Your task to perform on an android device: View the shopping cart on bestbuy.com. Add macbook pro 15 inch to the cart on bestbuy.com, then select checkout. Image 0: 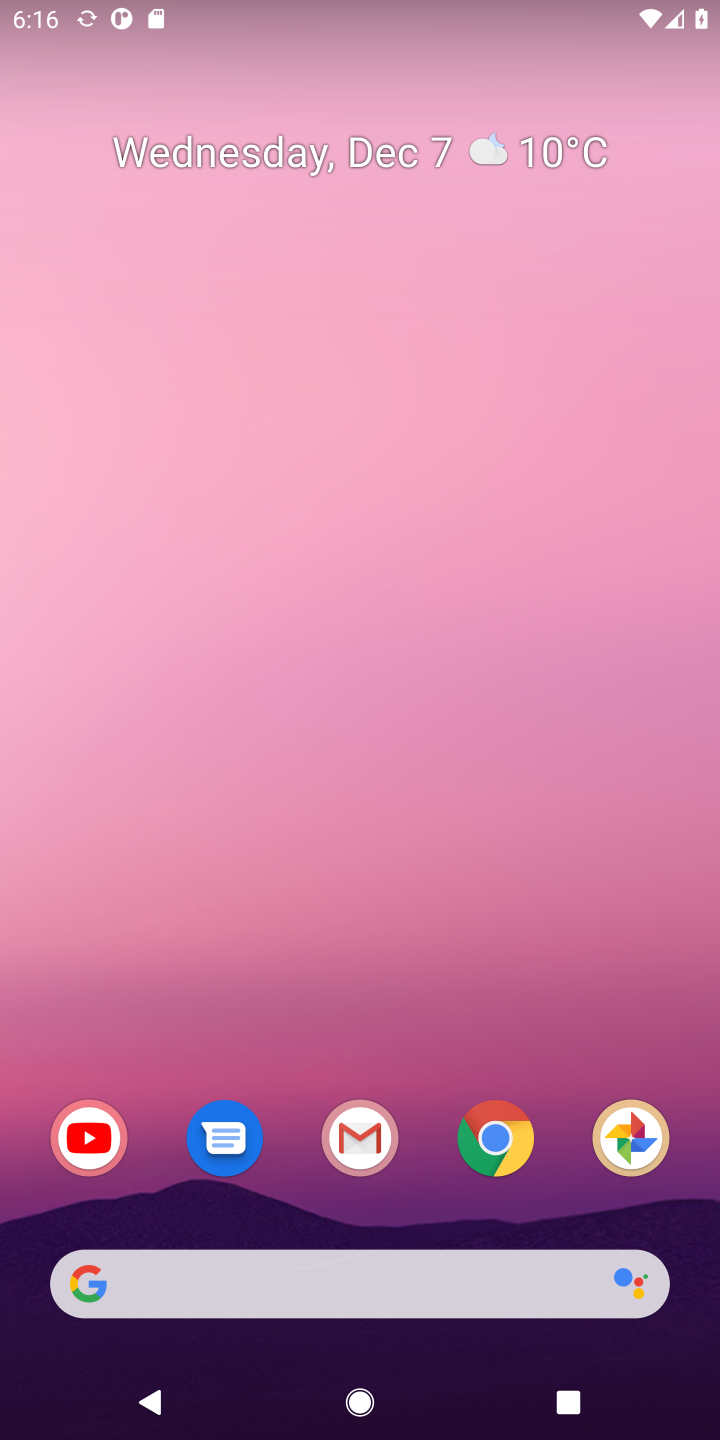
Step 0: press home button
Your task to perform on an android device: View the shopping cart on bestbuy.com. Add macbook pro 15 inch to the cart on bestbuy.com, then select checkout. Image 1: 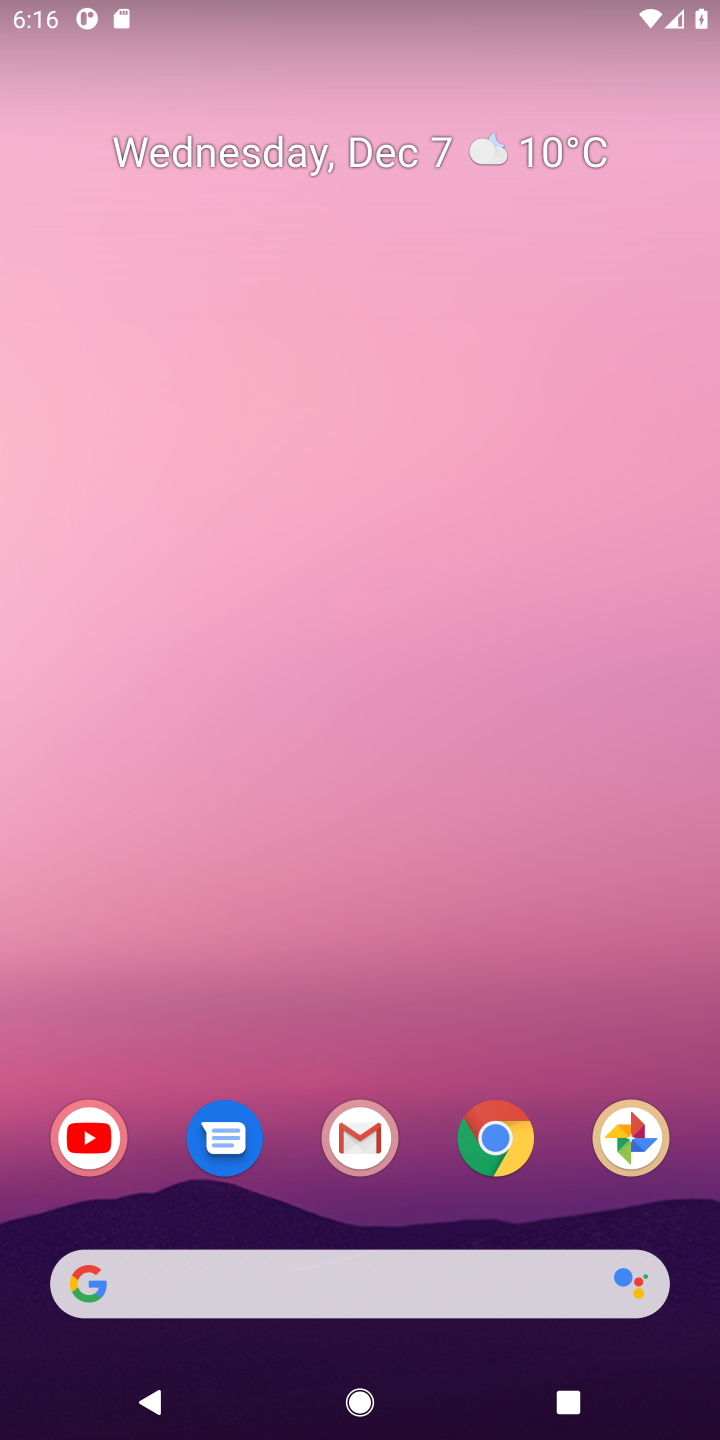
Step 1: click (251, 1288)
Your task to perform on an android device: View the shopping cart on bestbuy.com. Add macbook pro 15 inch to the cart on bestbuy.com, then select checkout. Image 2: 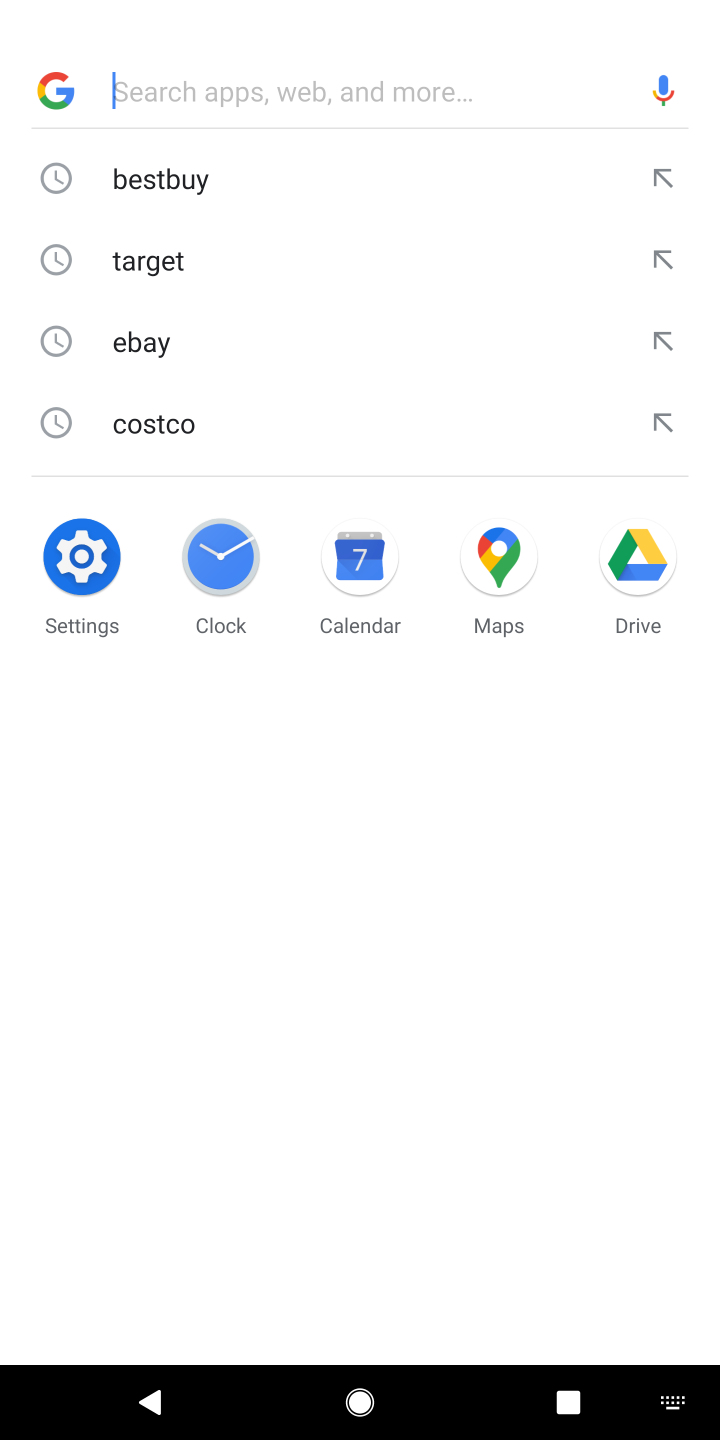
Step 2: click (185, 186)
Your task to perform on an android device: View the shopping cart on bestbuy.com. Add macbook pro 15 inch to the cart on bestbuy.com, then select checkout. Image 3: 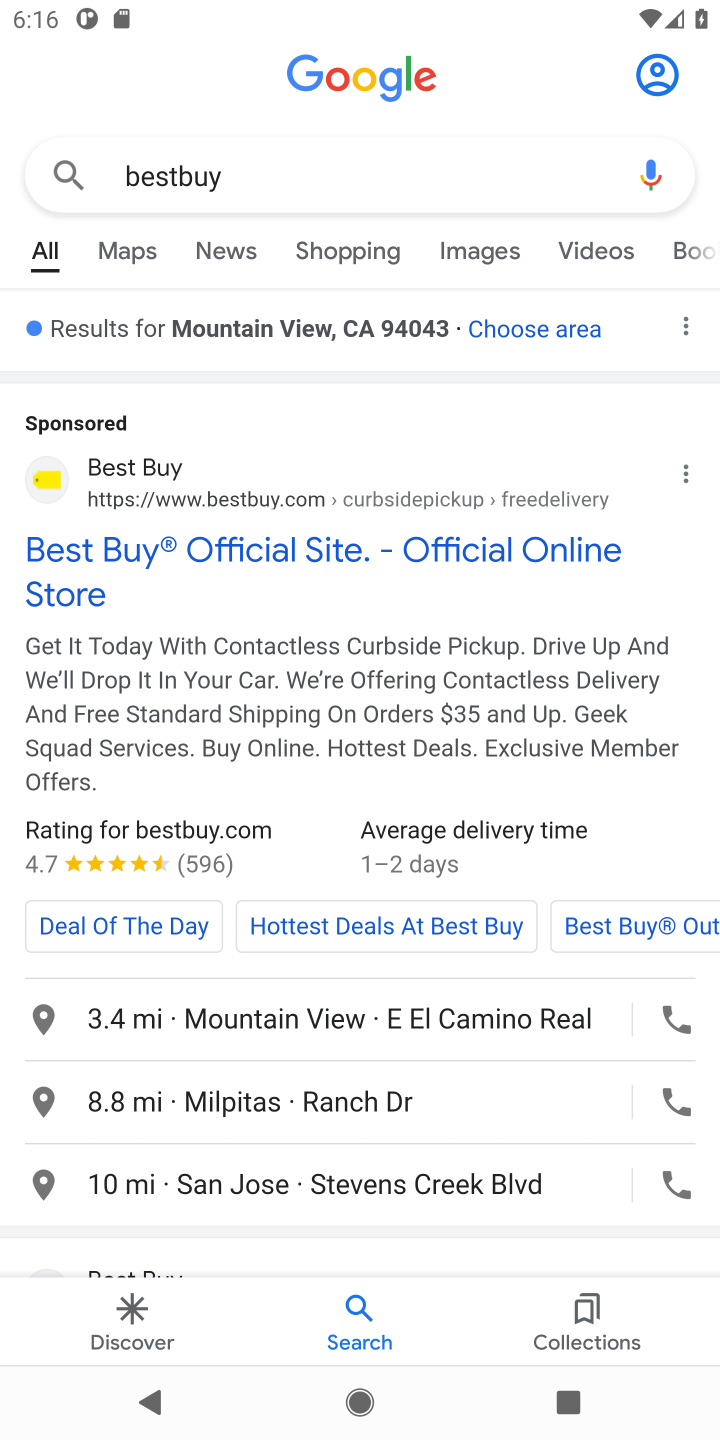
Step 3: click (249, 537)
Your task to perform on an android device: View the shopping cart on bestbuy.com. Add macbook pro 15 inch to the cart on bestbuy.com, then select checkout. Image 4: 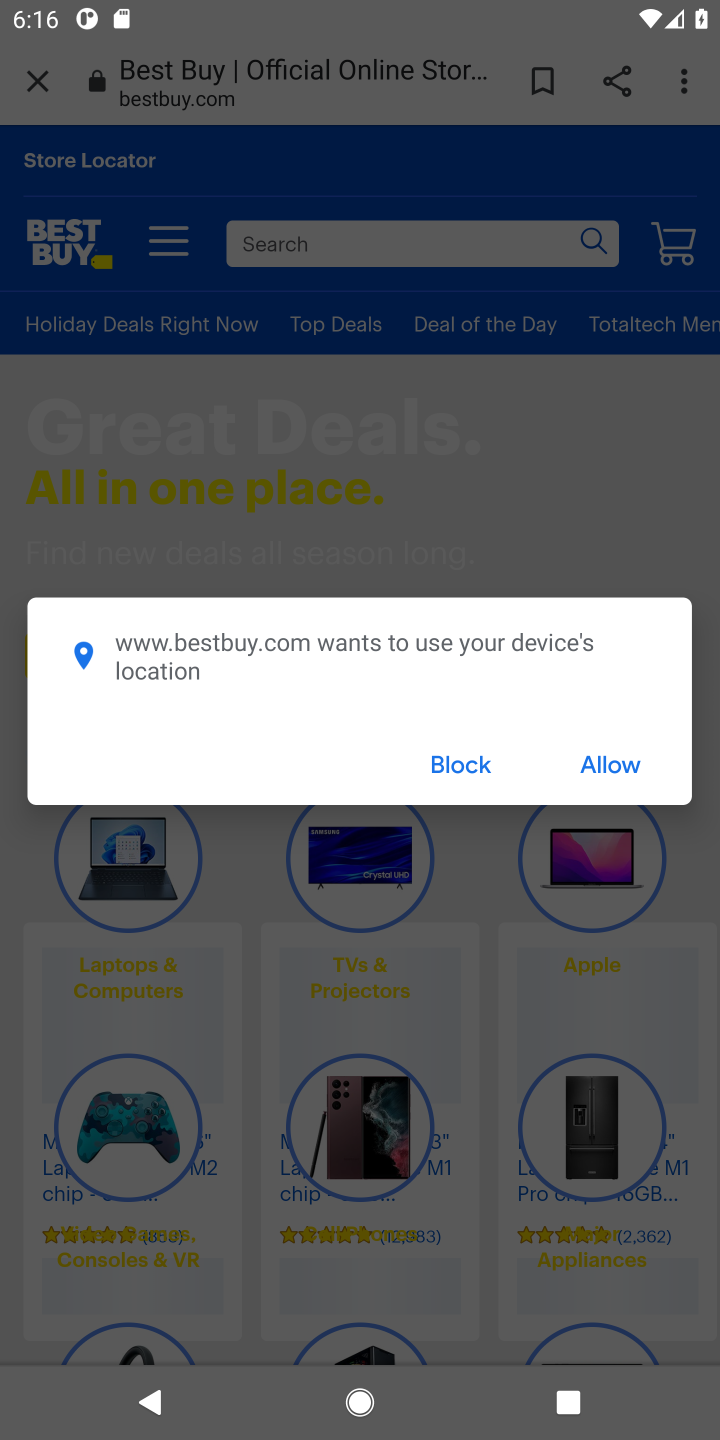
Step 4: click (443, 766)
Your task to perform on an android device: View the shopping cart on bestbuy.com. Add macbook pro 15 inch to the cart on bestbuy.com, then select checkout. Image 5: 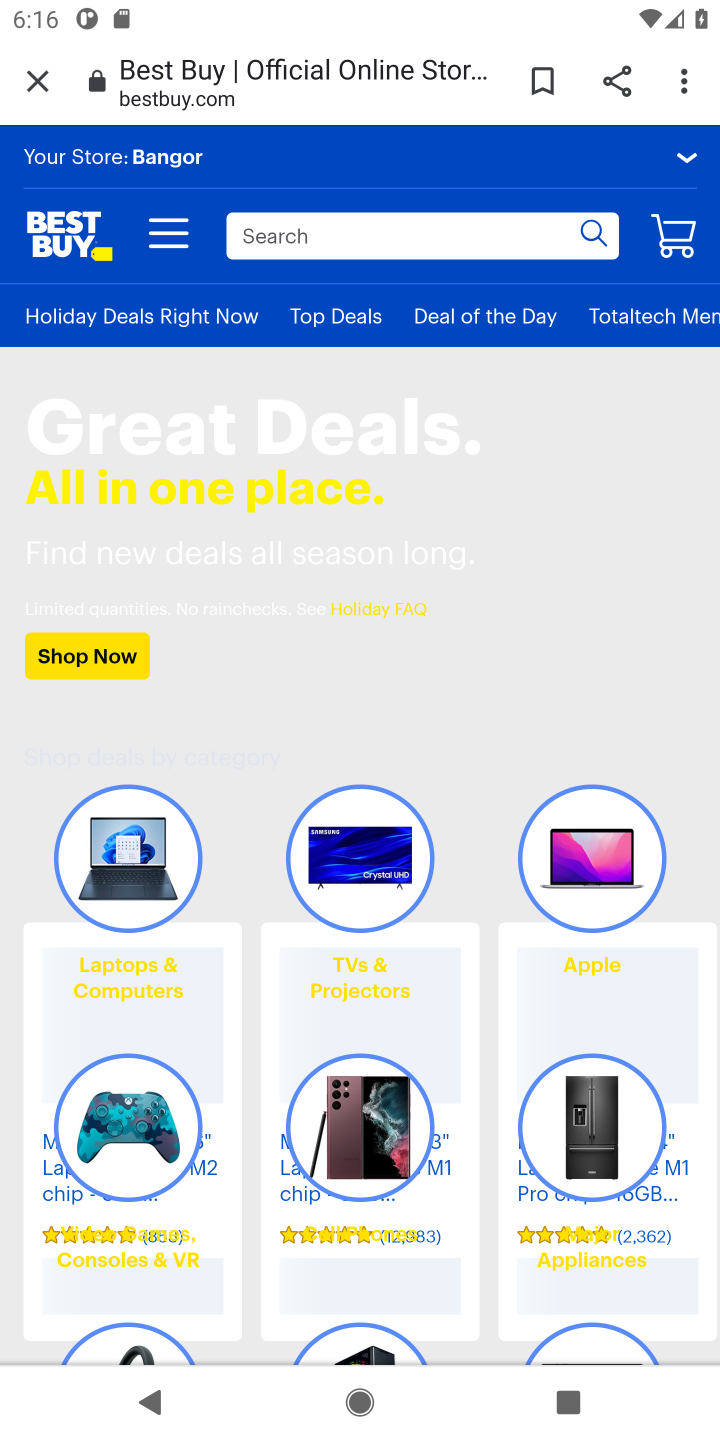
Step 5: click (683, 243)
Your task to perform on an android device: View the shopping cart on bestbuy.com. Add macbook pro 15 inch to the cart on bestbuy.com, then select checkout. Image 6: 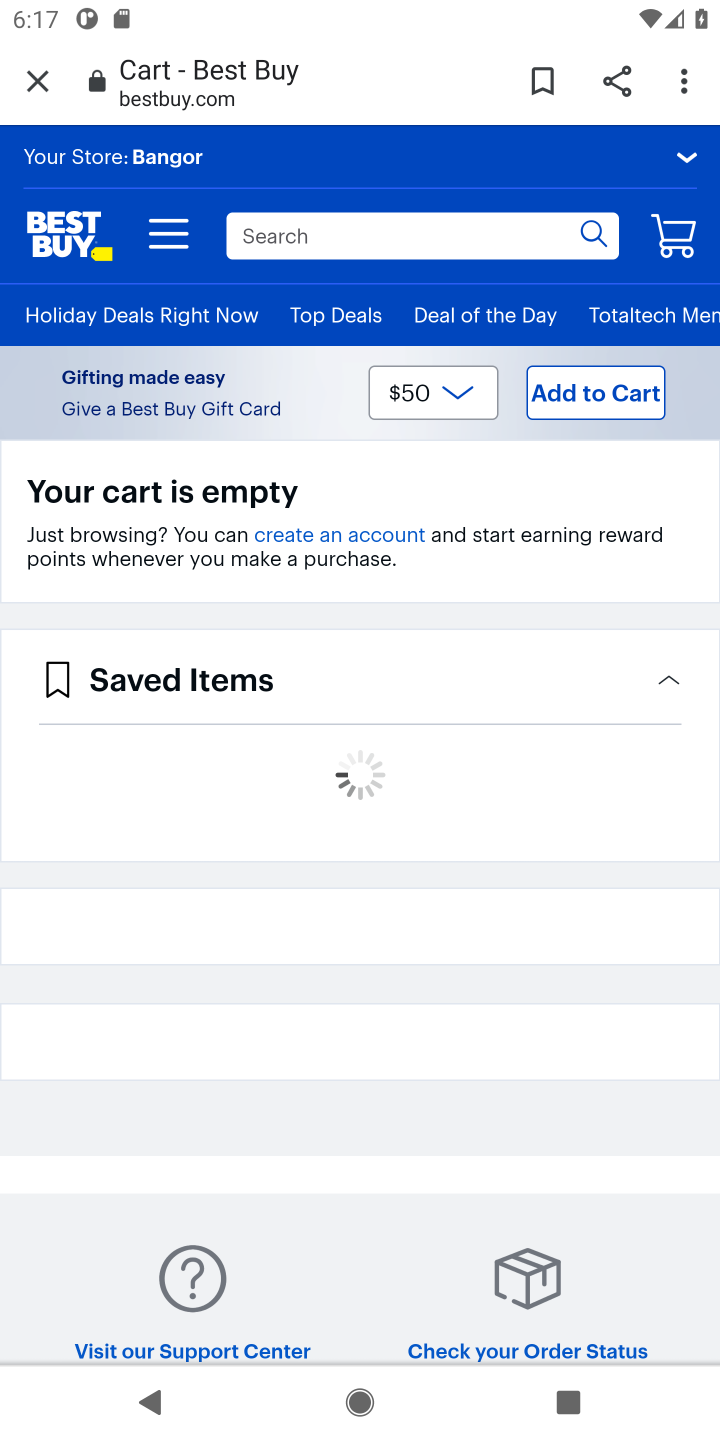
Step 6: click (319, 227)
Your task to perform on an android device: View the shopping cart on bestbuy.com. Add macbook pro 15 inch to the cart on bestbuy.com, then select checkout. Image 7: 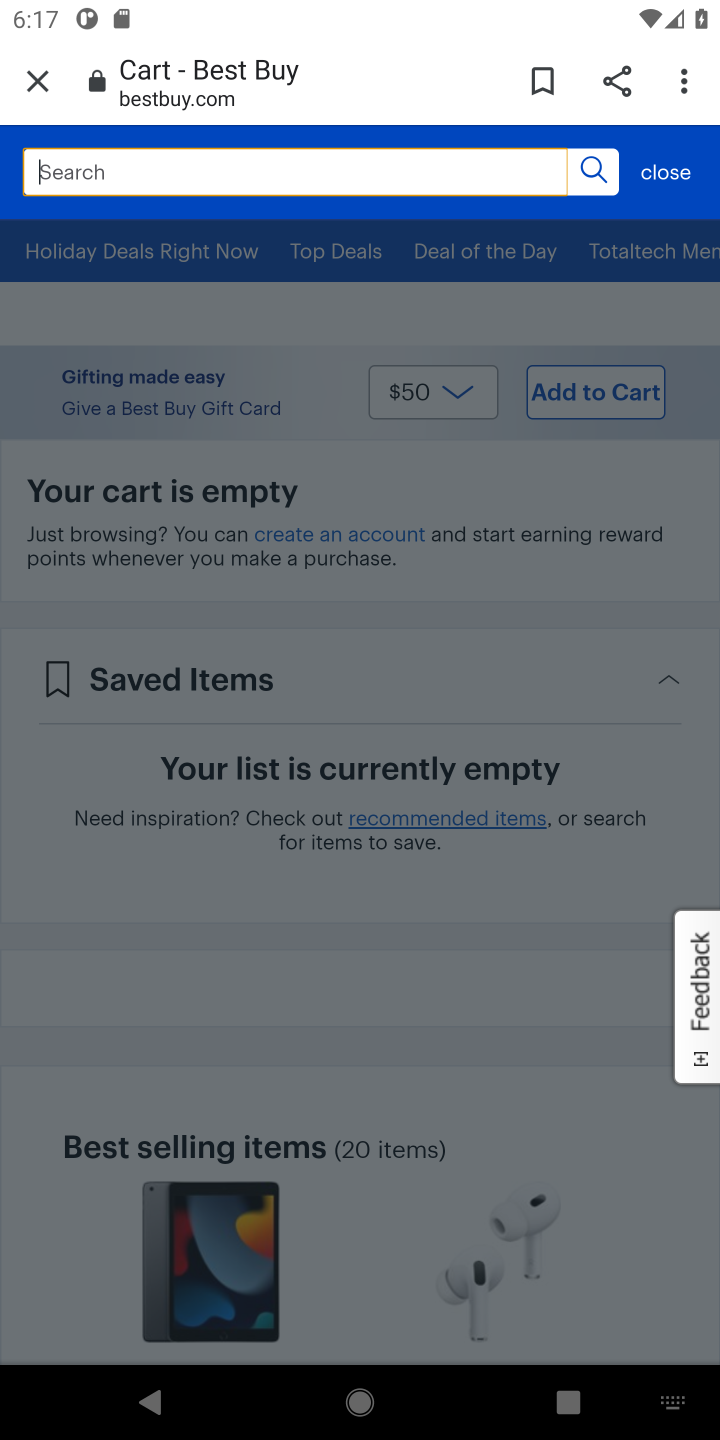
Step 7: press enter
Your task to perform on an android device: View the shopping cart on bestbuy.com. Add macbook pro 15 inch to the cart on bestbuy.com, then select checkout. Image 8: 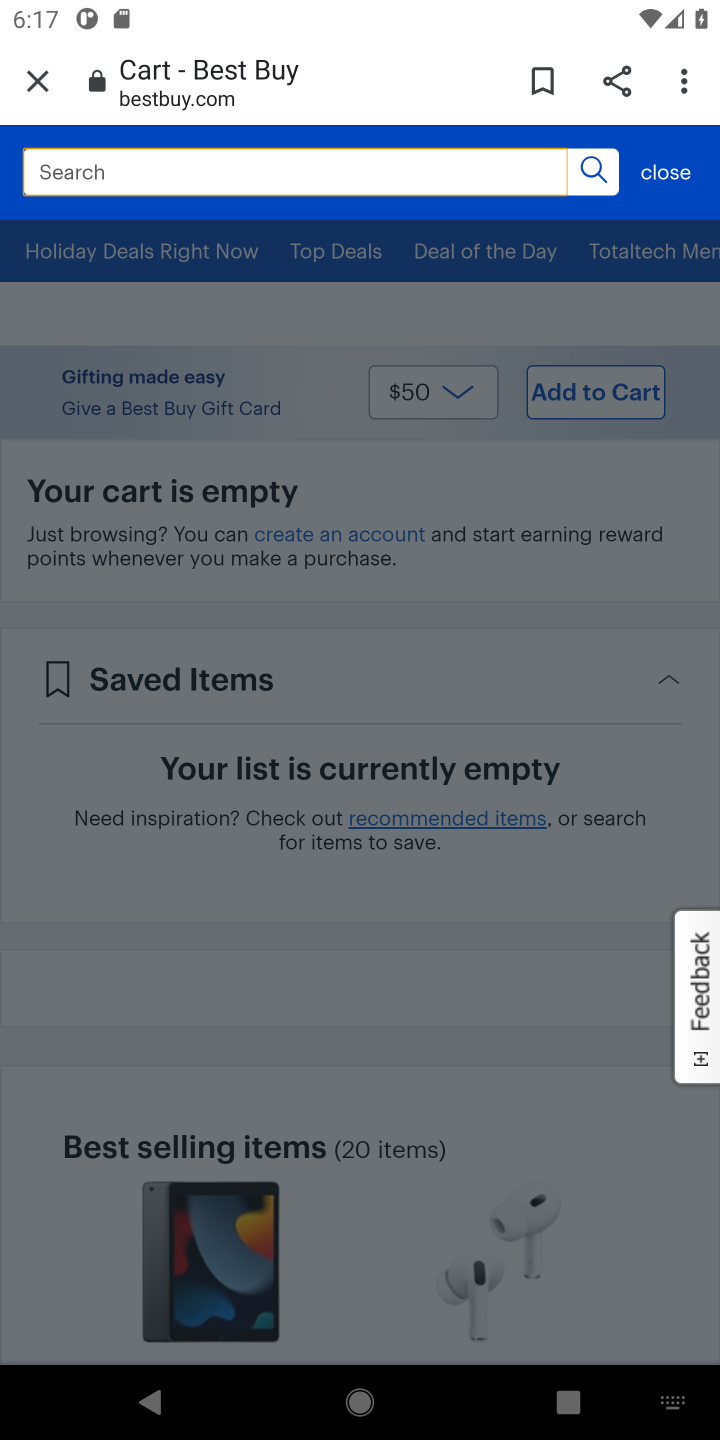
Step 8: type "macbook pro 15 inch"
Your task to perform on an android device: View the shopping cart on bestbuy.com. Add macbook pro 15 inch to the cart on bestbuy.com, then select checkout. Image 9: 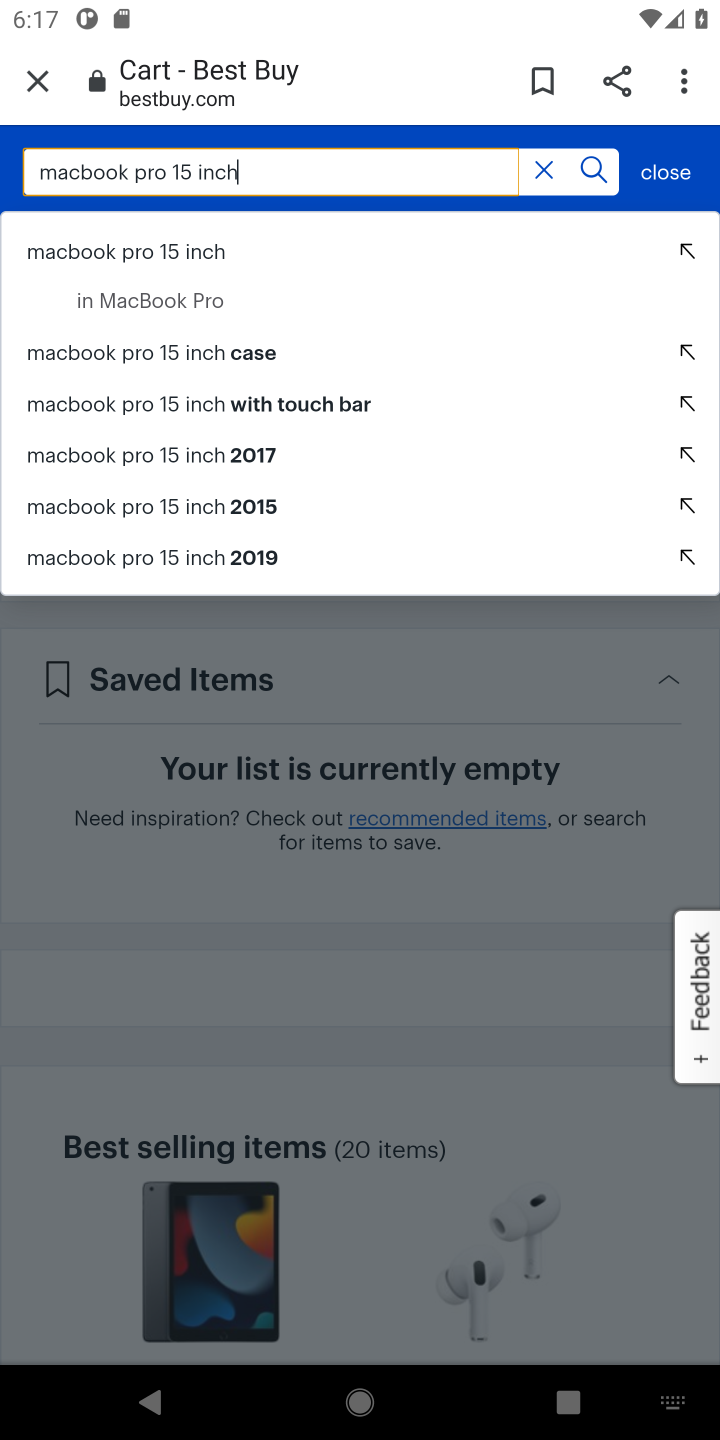
Step 9: click (105, 251)
Your task to perform on an android device: View the shopping cart on bestbuy.com. Add macbook pro 15 inch to the cart on bestbuy.com, then select checkout. Image 10: 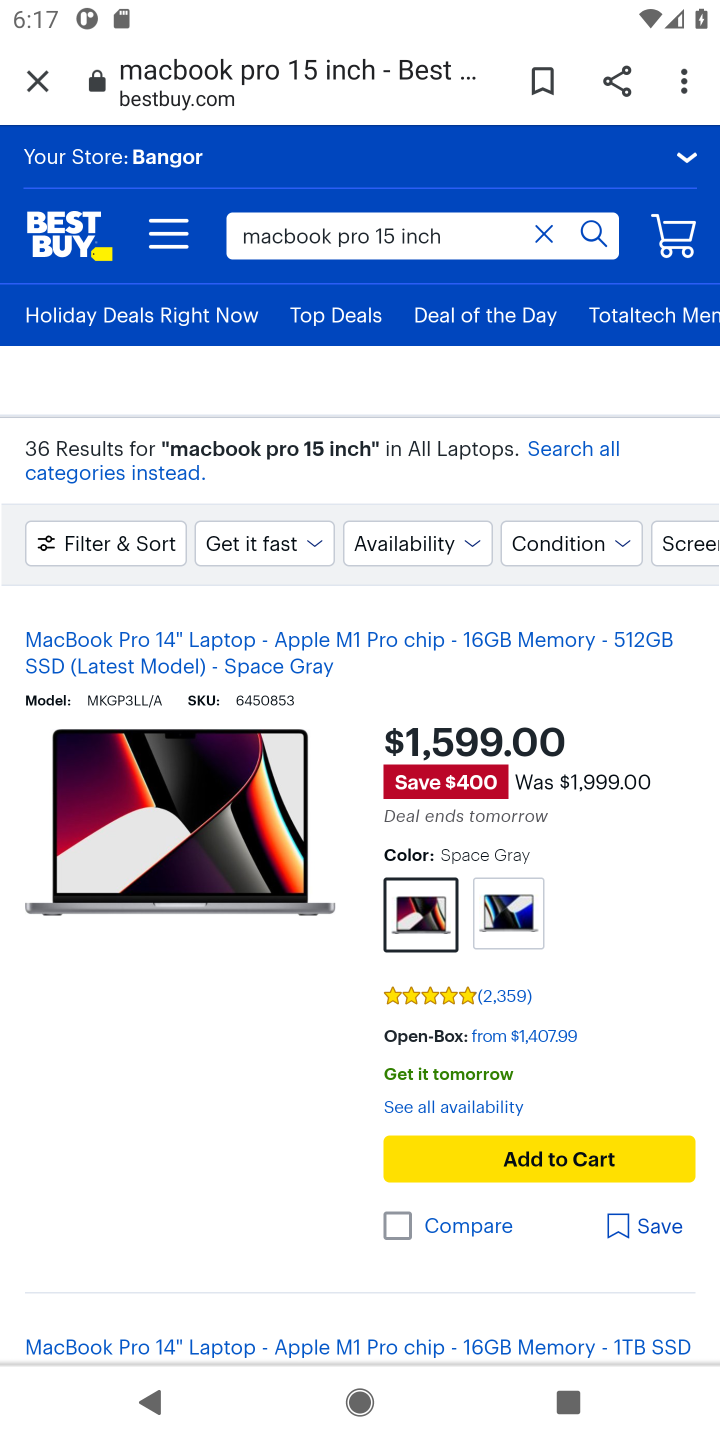
Step 10: click (544, 1155)
Your task to perform on an android device: View the shopping cart on bestbuy.com. Add macbook pro 15 inch to the cart on bestbuy.com, then select checkout. Image 11: 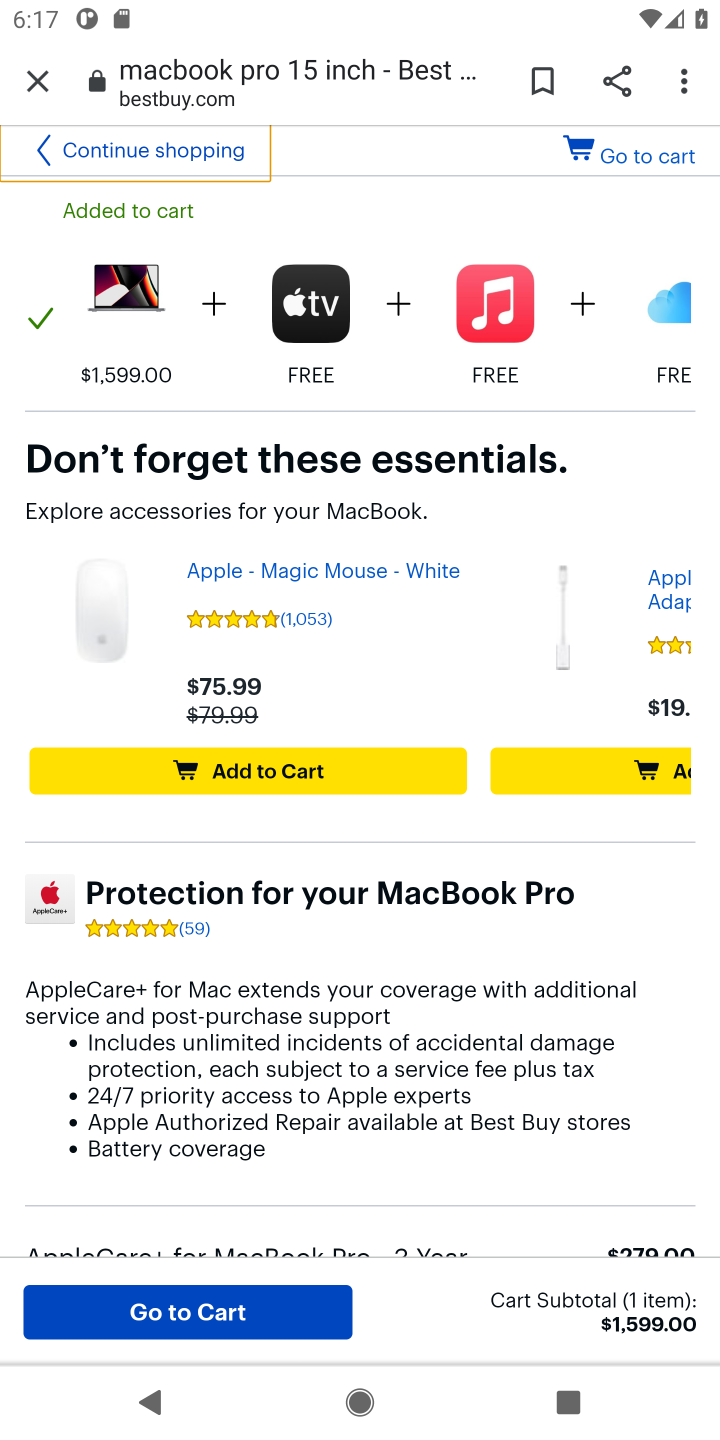
Step 11: click (195, 1322)
Your task to perform on an android device: View the shopping cart on bestbuy.com. Add macbook pro 15 inch to the cart on bestbuy.com, then select checkout. Image 12: 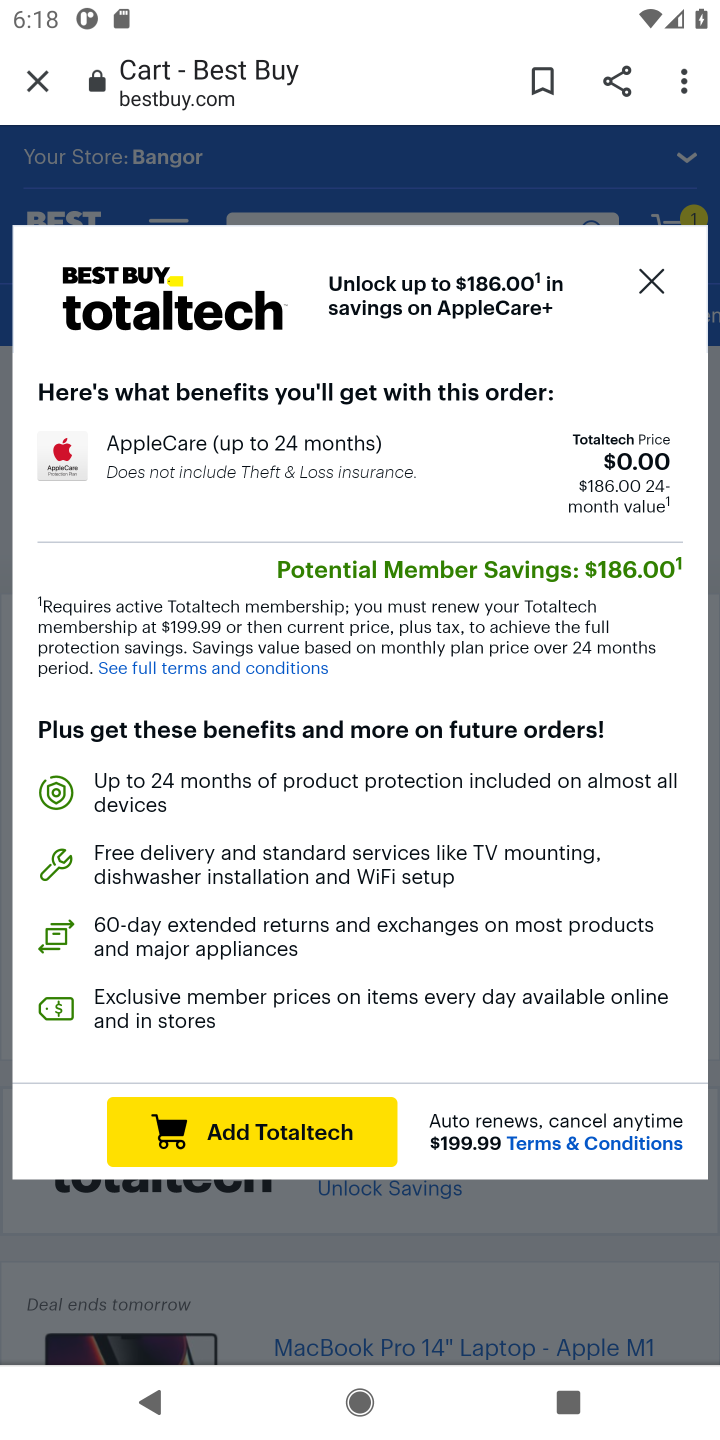
Step 12: click (651, 281)
Your task to perform on an android device: View the shopping cart on bestbuy.com. Add macbook pro 15 inch to the cart on bestbuy.com, then select checkout. Image 13: 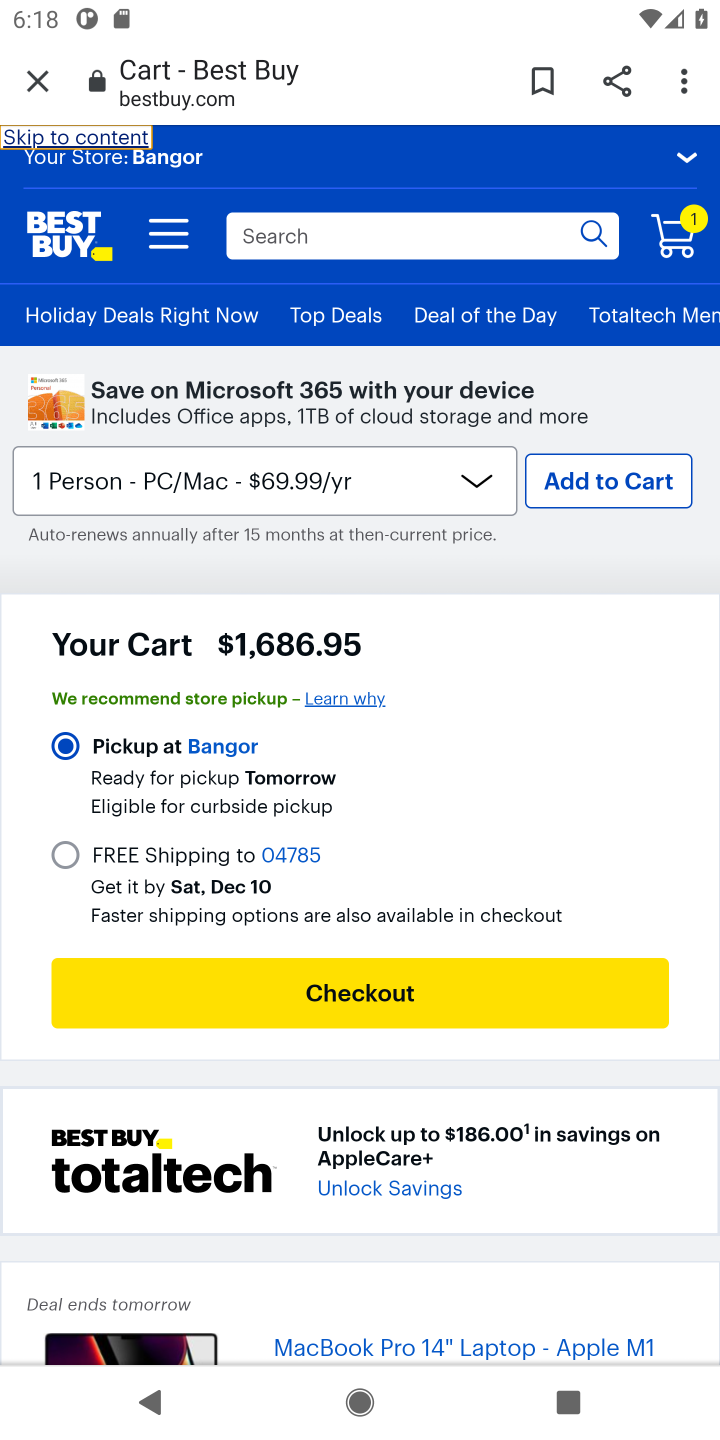
Step 13: click (394, 1000)
Your task to perform on an android device: View the shopping cart on bestbuy.com. Add macbook pro 15 inch to the cart on bestbuy.com, then select checkout. Image 14: 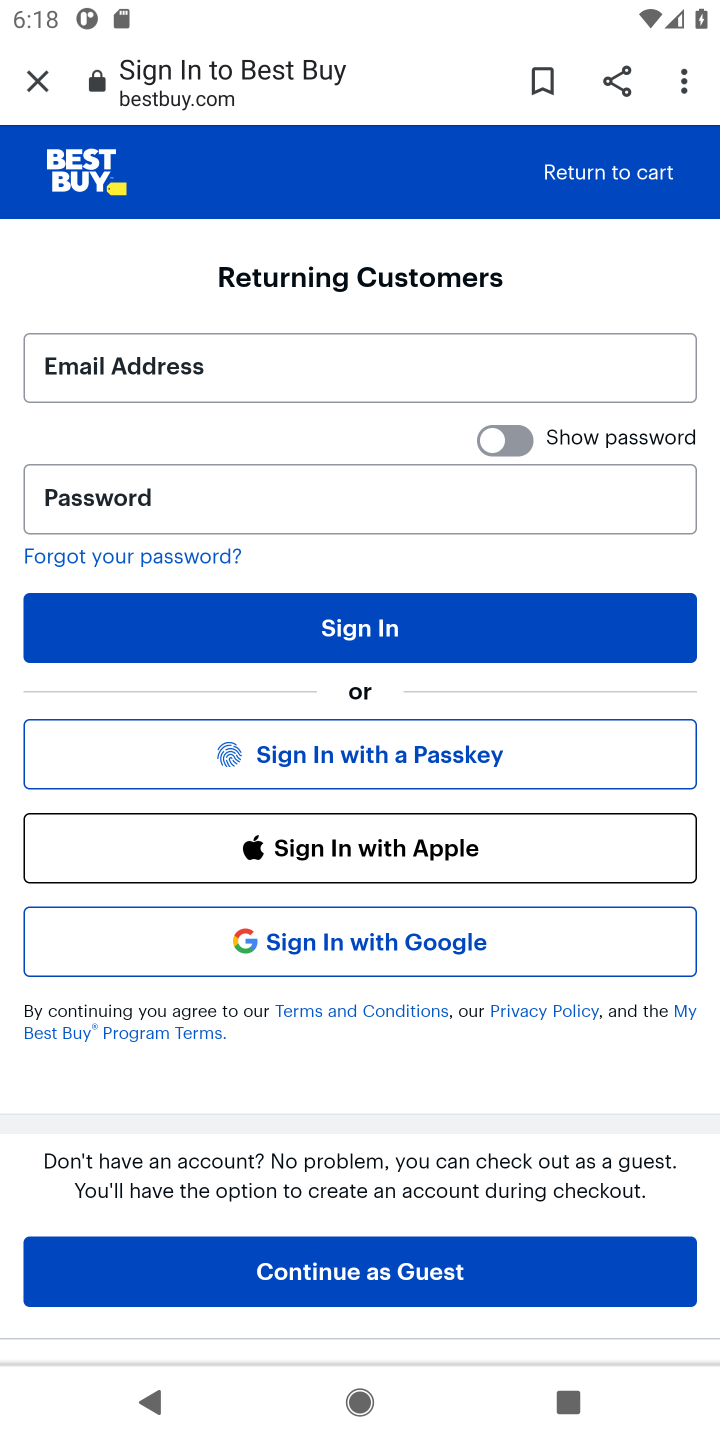
Step 14: task complete